Your task to perform on an android device: turn on data saver in the chrome app Image 0: 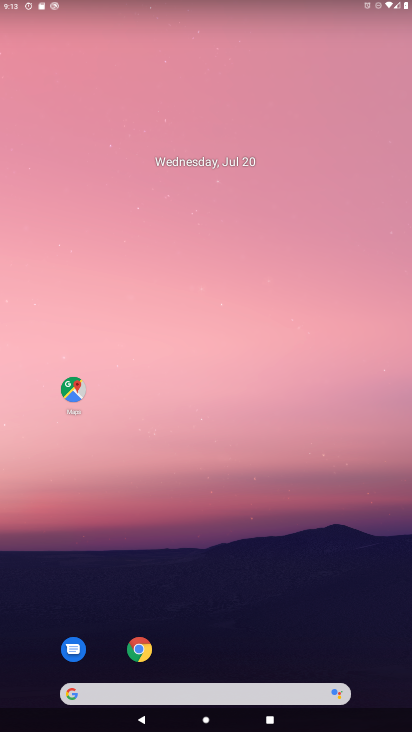
Step 0: click (140, 649)
Your task to perform on an android device: turn on data saver in the chrome app Image 1: 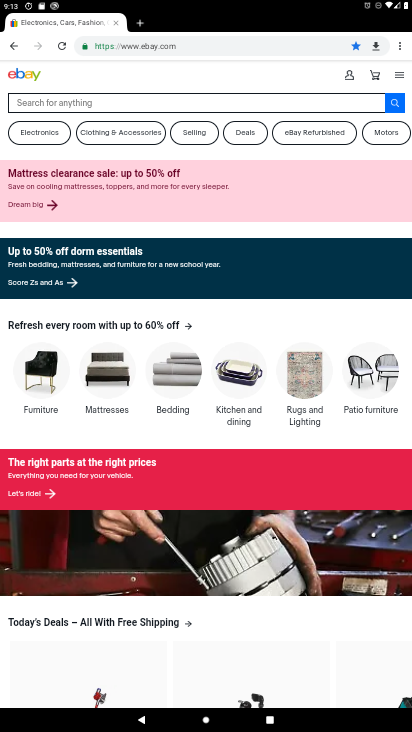
Step 1: click (400, 46)
Your task to perform on an android device: turn on data saver in the chrome app Image 2: 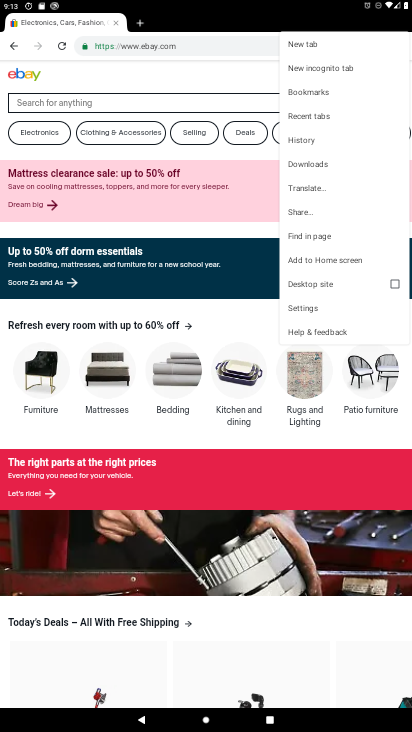
Step 2: click (300, 310)
Your task to perform on an android device: turn on data saver in the chrome app Image 3: 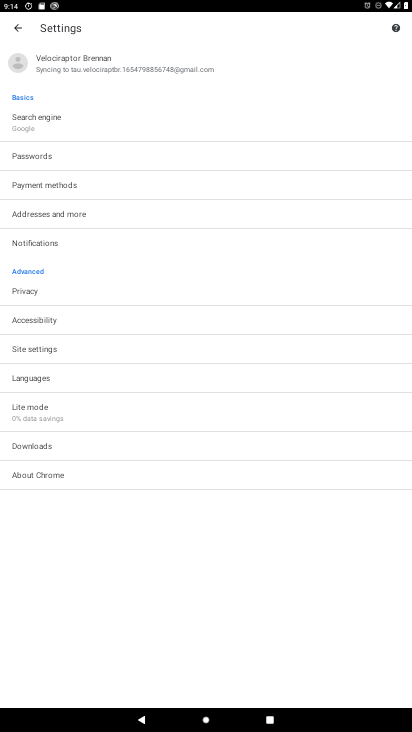
Step 3: click (37, 409)
Your task to perform on an android device: turn on data saver in the chrome app Image 4: 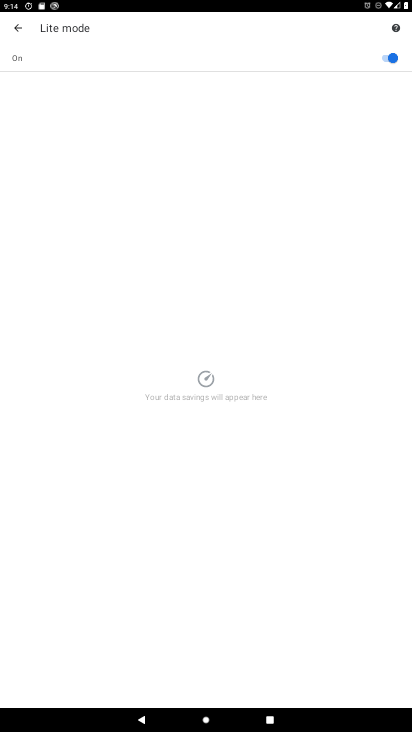
Step 4: task complete